Your task to perform on an android device: empty trash in google photos Image 0: 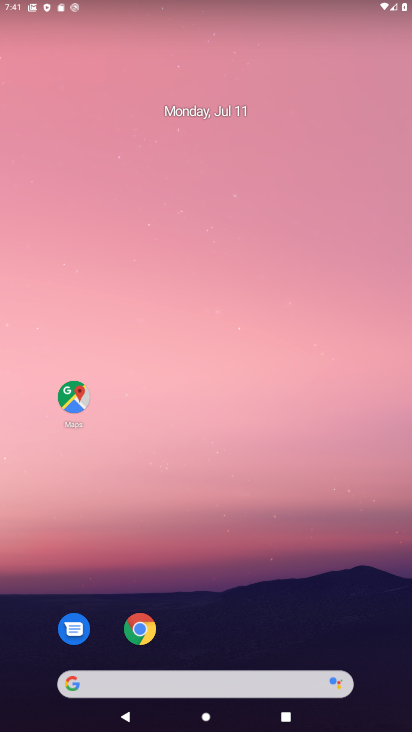
Step 0: drag from (224, 658) to (297, 636)
Your task to perform on an android device: empty trash in google photos Image 1: 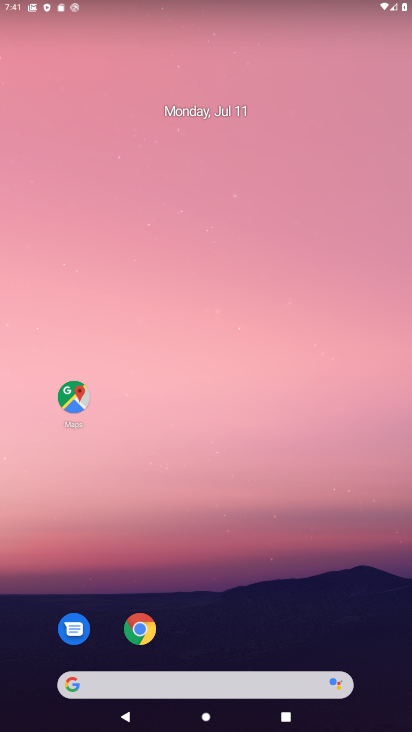
Step 1: drag from (193, 626) to (211, 6)
Your task to perform on an android device: empty trash in google photos Image 2: 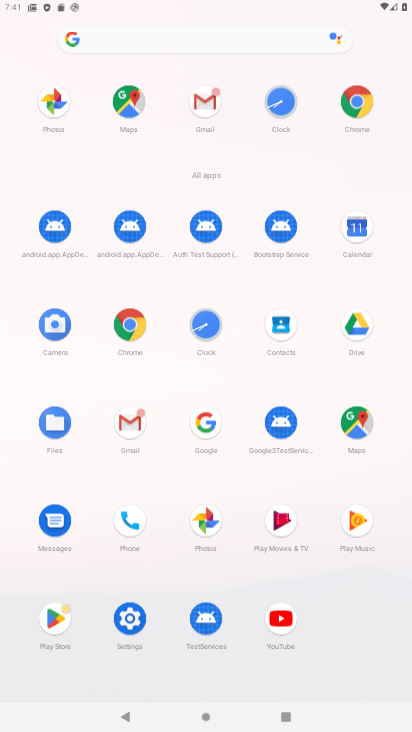
Step 2: click (203, 550)
Your task to perform on an android device: empty trash in google photos Image 3: 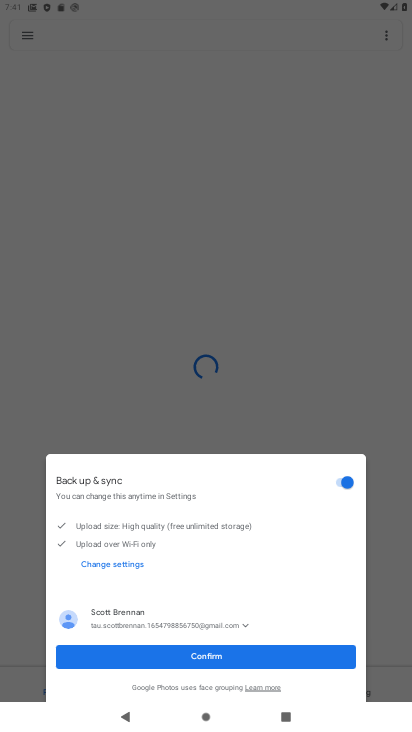
Step 3: click (193, 658)
Your task to perform on an android device: empty trash in google photos Image 4: 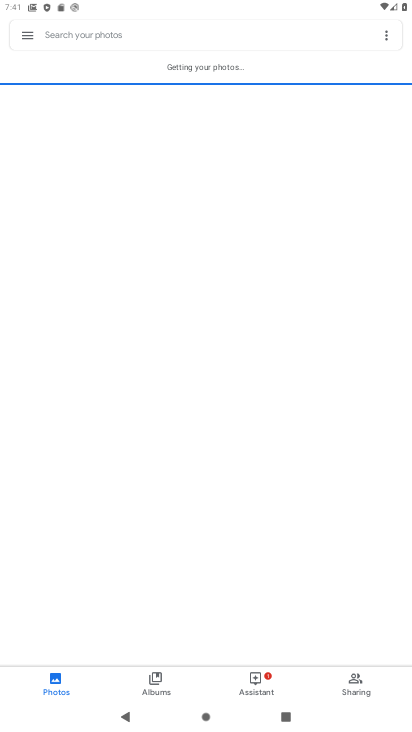
Step 4: click (31, 35)
Your task to perform on an android device: empty trash in google photos Image 5: 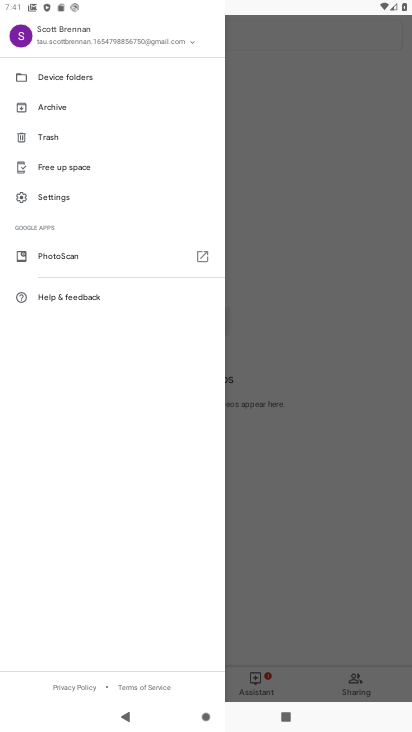
Step 5: click (52, 146)
Your task to perform on an android device: empty trash in google photos Image 6: 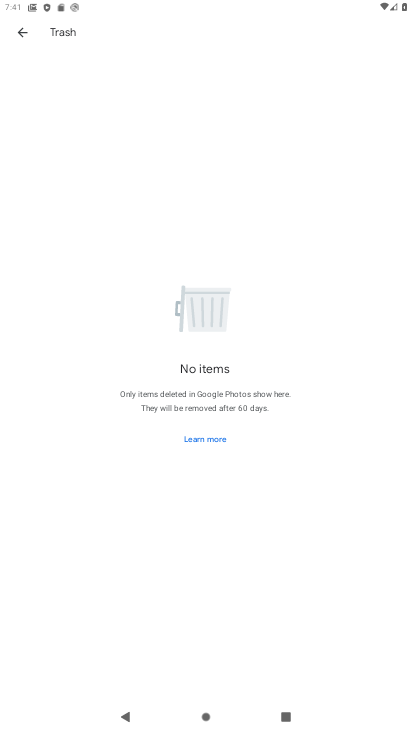
Step 6: task complete